Your task to perform on an android device: Set the phone to "Do not disturb". Image 0: 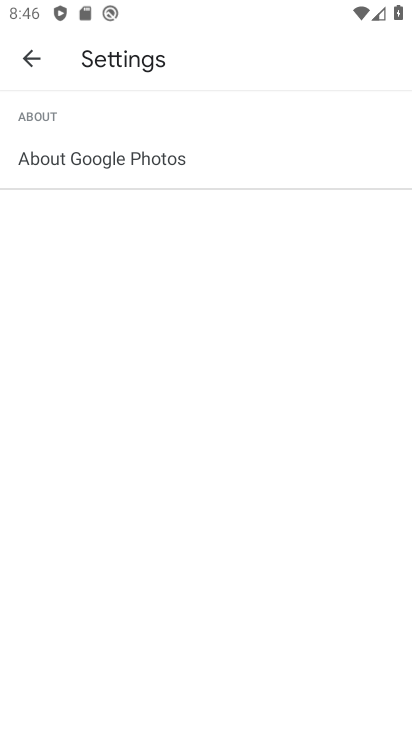
Step 0: drag from (142, 6) to (102, 687)
Your task to perform on an android device: Set the phone to "Do not disturb". Image 1: 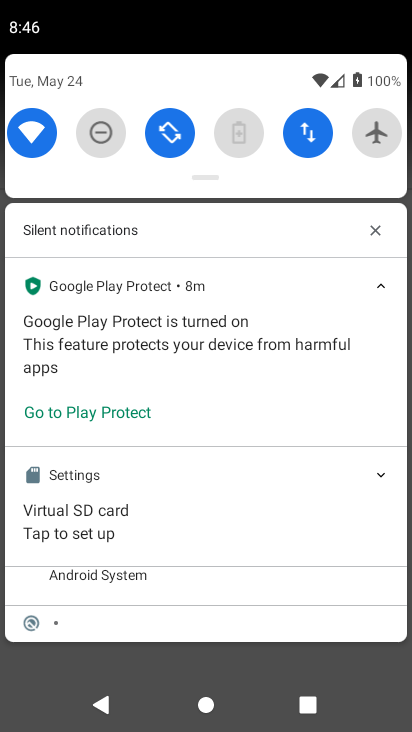
Step 1: click (97, 142)
Your task to perform on an android device: Set the phone to "Do not disturb". Image 2: 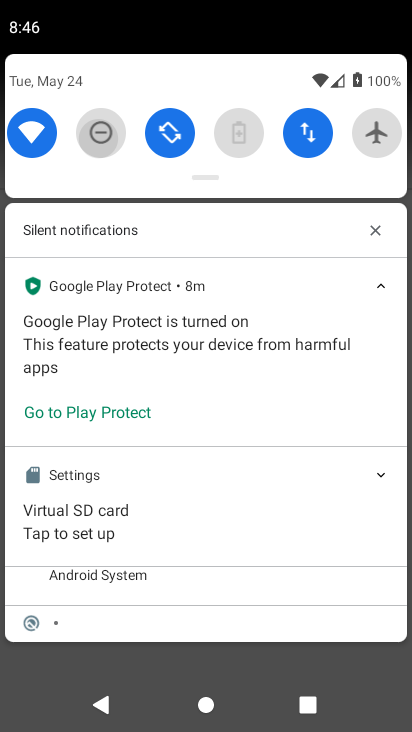
Step 2: click (97, 142)
Your task to perform on an android device: Set the phone to "Do not disturb". Image 3: 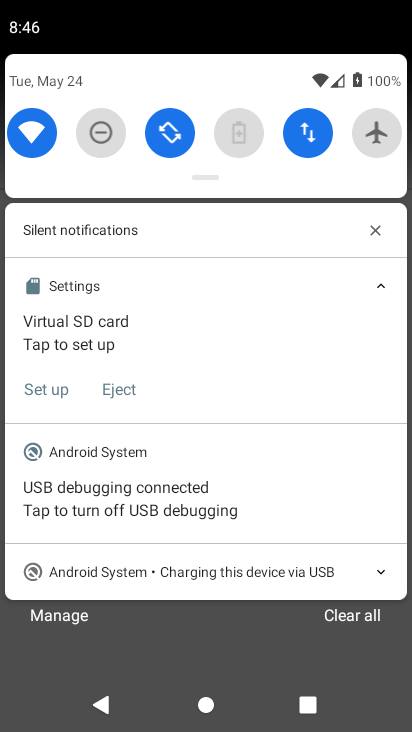
Step 3: click (97, 142)
Your task to perform on an android device: Set the phone to "Do not disturb". Image 4: 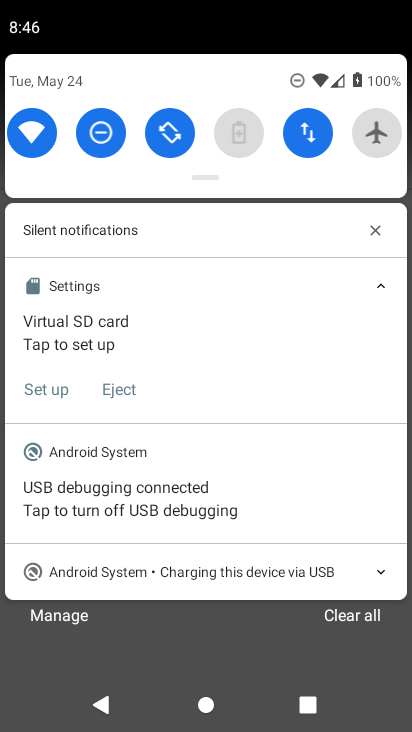
Step 4: task complete